Your task to perform on an android device: all mails in gmail Image 0: 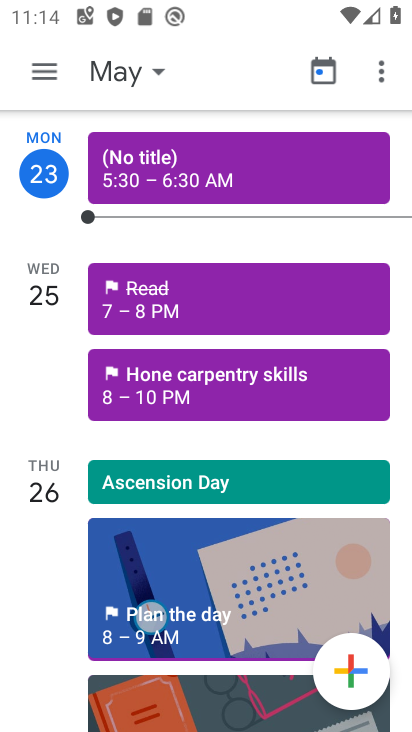
Step 0: press home button
Your task to perform on an android device: all mails in gmail Image 1: 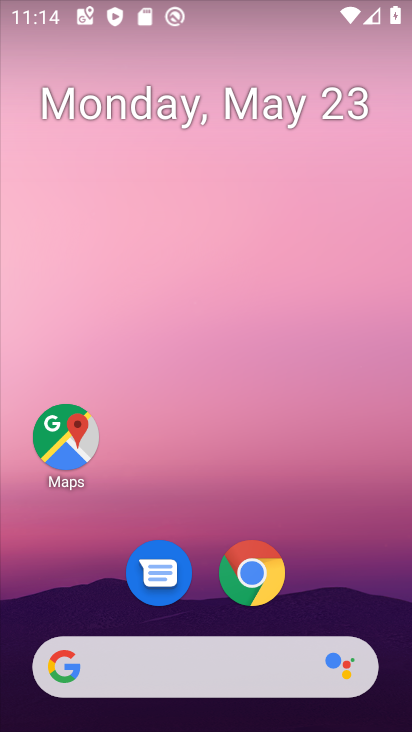
Step 1: drag from (375, 605) to (366, 215)
Your task to perform on an android device: all mails in gmail Image 2: 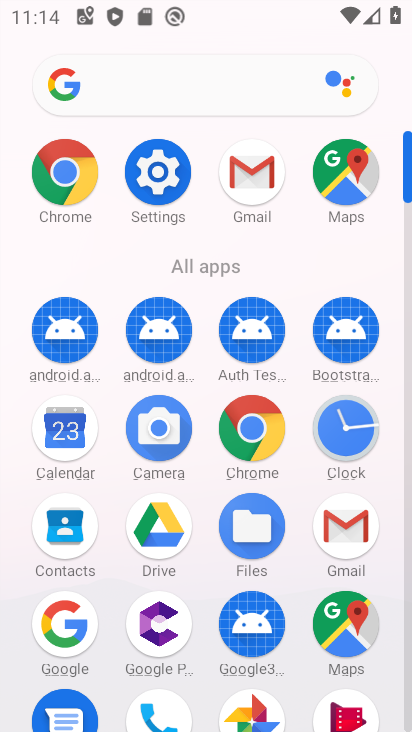
Step 2: click (359, 536)
Your task to perform on an android device: all mails in gmail Image 3: 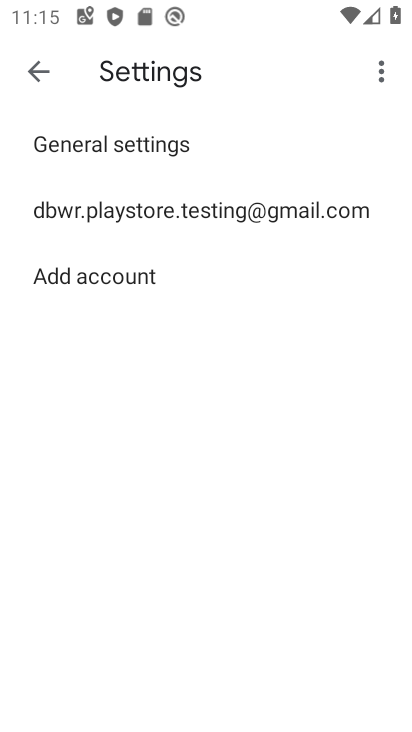
Step 3: click (42, 74)
Your task to perform on an android device: all mails in gmail Image 4: 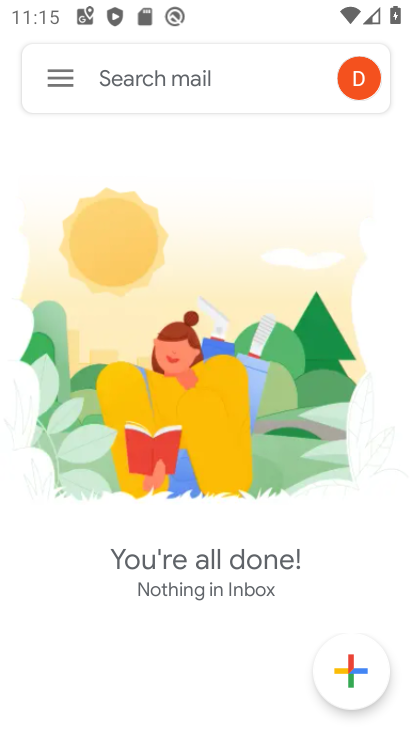
Step 4: click (43, 74)
Your task to perform on an android device: all mails in gmail Image 5: 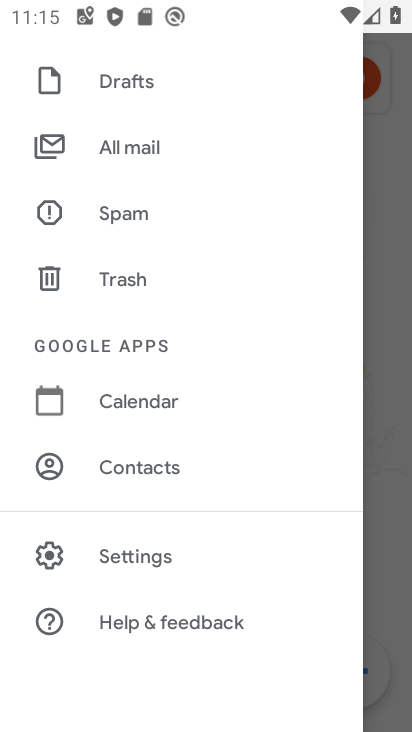
Step 5: drag from (306, 525) to (296, 324)
Your task to perform on an android device: all mails in gmail Image 6: 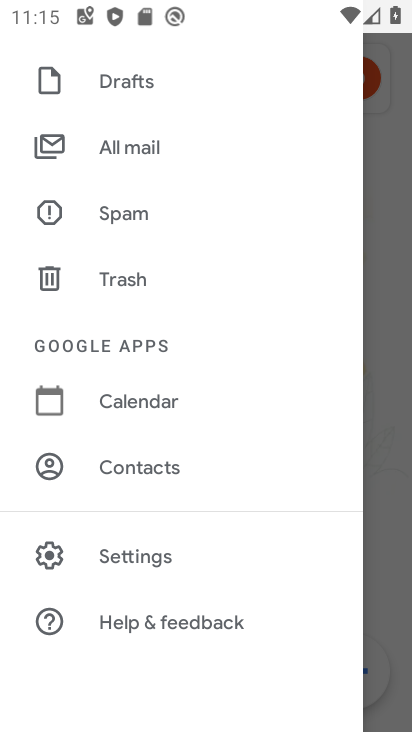
Step 6: click (160, 140)
Your task to perform on an android device: all mails in gmail Image 7: 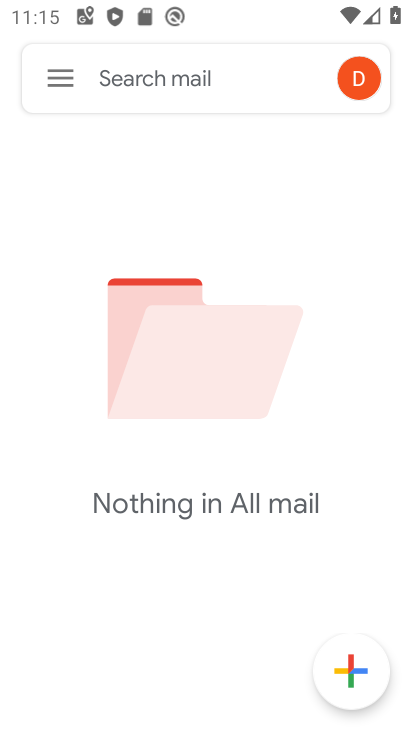
Step 7: task complete